Your task to perform on an android device: turn off priority inbox in the gmail app Image 0: 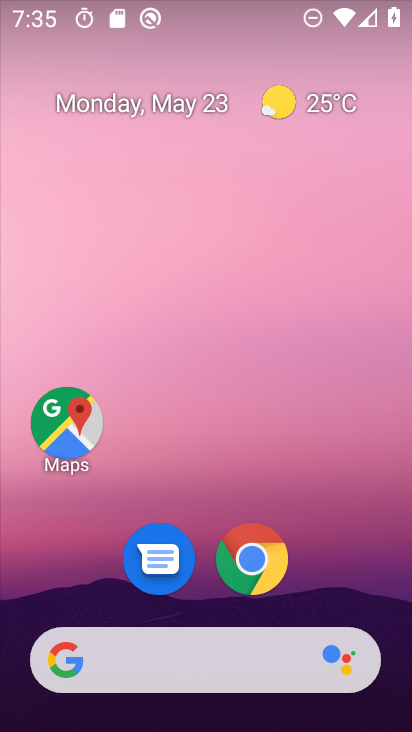
Step 0: drag from (399, 622) to (298, 54)
Your task to perform on an android device: turn off priority inbox in the gmail app Image 1: 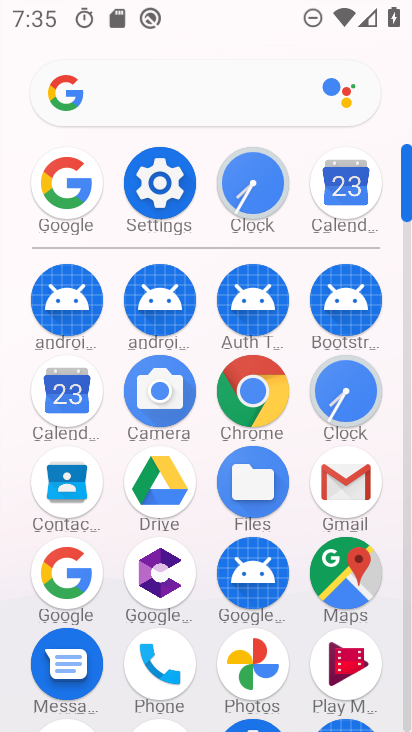
Step 1: click (342, 494)
Your task to perform on an android device: turn off priority inbox in the gmail app Image 2: 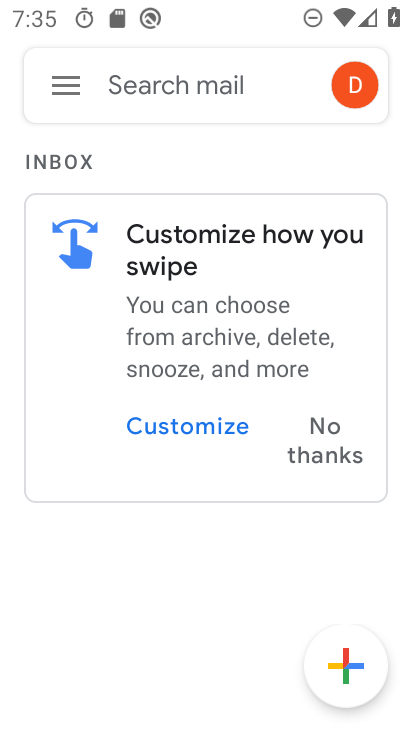
Step 2: click (72, 81)
Your task to perform on an android device: turn off priority inbox in the gmail app Image 3: 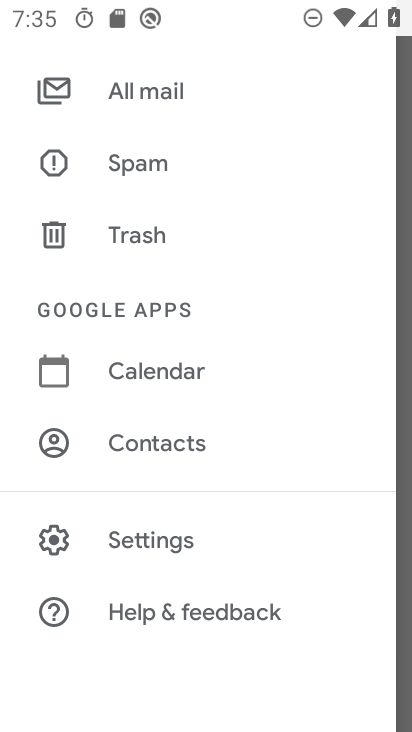
Step 3: click (202, 535)
Your task to perform on an android device: turn off priority inbox in the gmail app Image 4: 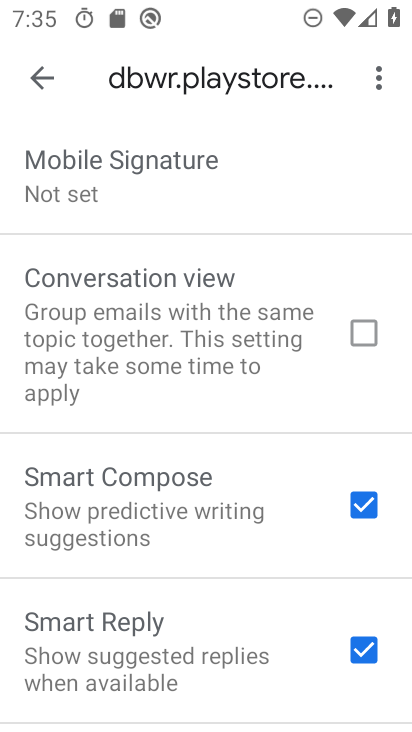
Step 4: drag from (184, 144) to (162, 662)
Your task to perform on an android device: turn off priority inbox in the gmail app Image 5: 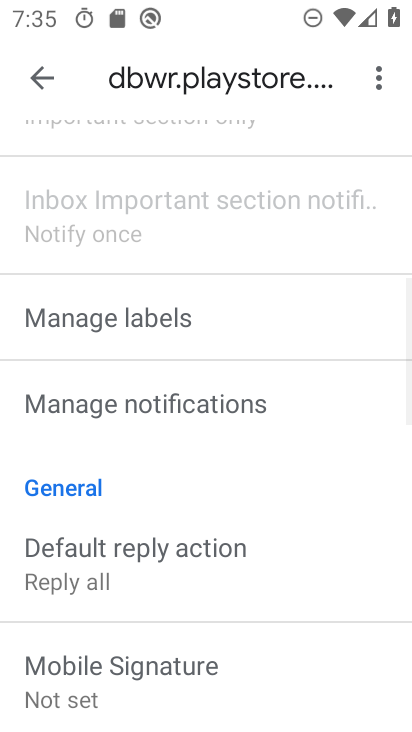
Step 5: drag from (166, 240) to (202, 640)
Your task to perform on an android device: turn off priority inbox in the gmail app Image 6: 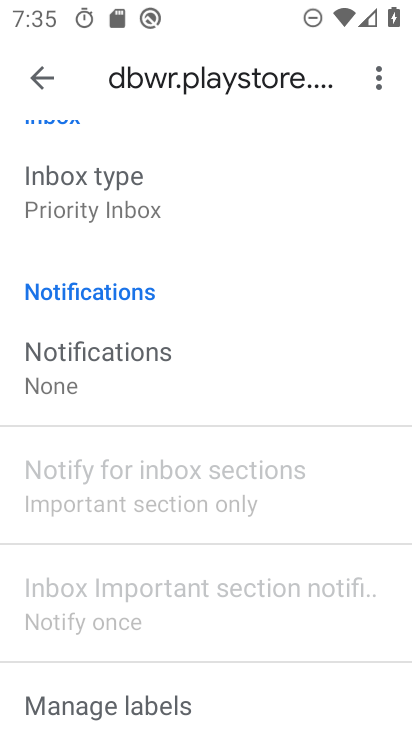
Step 6: drag from (192, 257) to (190, 666)
Your task to perform on an android device: turn off priority inbox in the gmail app Image 7: 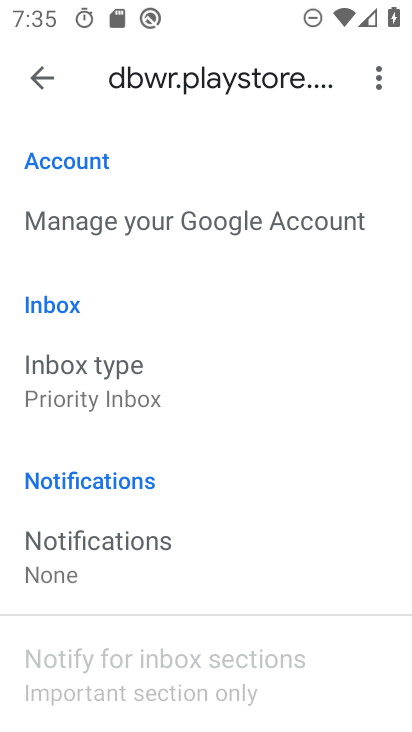
Step 7: click (147, 391)
Your task to perform on an android device: turn off priority inbox in the gmail app Image 8: 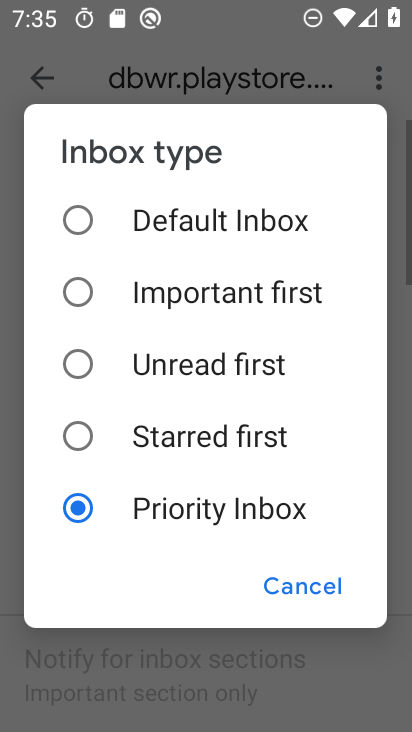
Step 8: click (74, 225)
Your task to perform on an android device: turn off priority inbox in the gmail app Image 9: 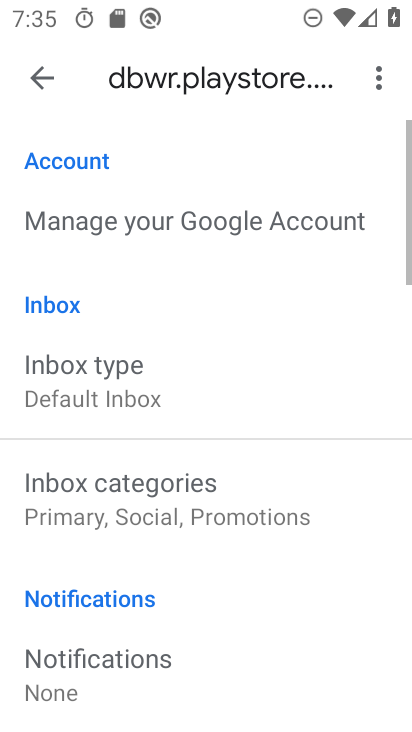
Step 9: task complete